Your task to perform on an android device: Go to Yahoo.com Image 0: 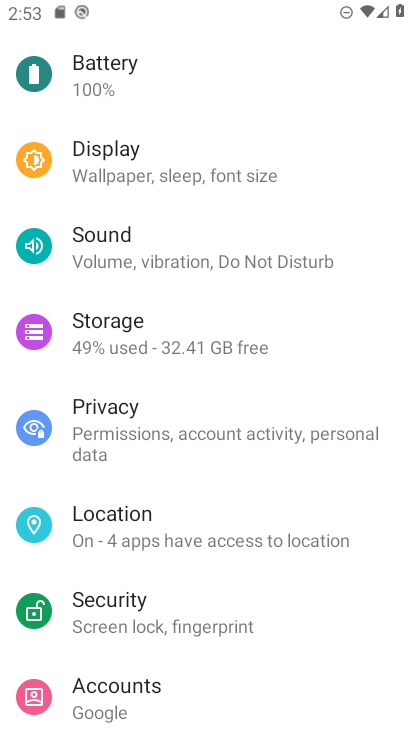
Step 0: press home button
Your task to perform on an android device: Go to Yahoo.com Image 1: 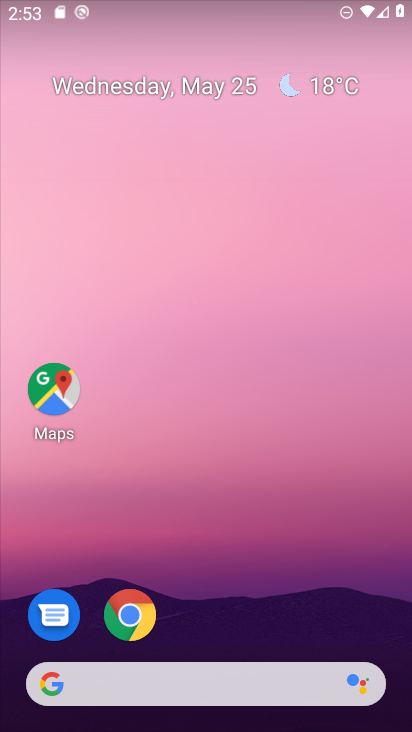
Step 1: click (272, 682)
Your task to perform on an android device: Go to Yahoo.com Image 2: 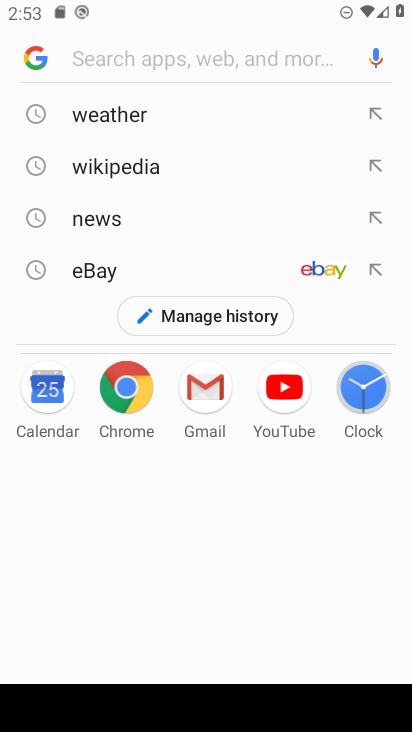
Step 2: type "yahoo.com"
Your task to perform on an android device: Go to Yahoo.com Image 3: 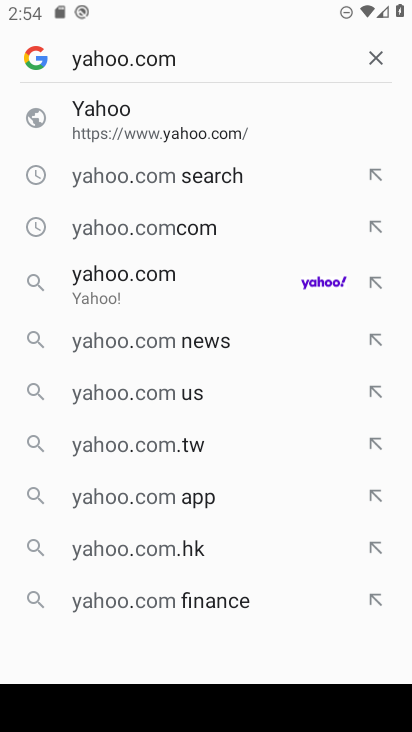
Step 3: click (142, 268)
Your task to perform on an android device: Go to Yahoo.com Image 4: 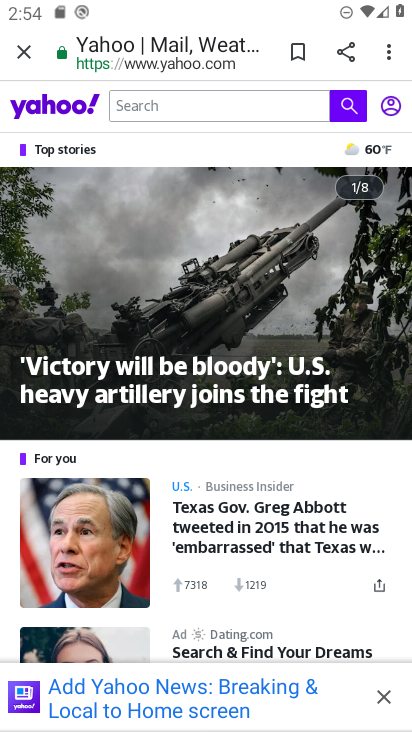
Step 4: task complete